Your task to perform on an android device: toggle show notifications on the lock screen Image 0: 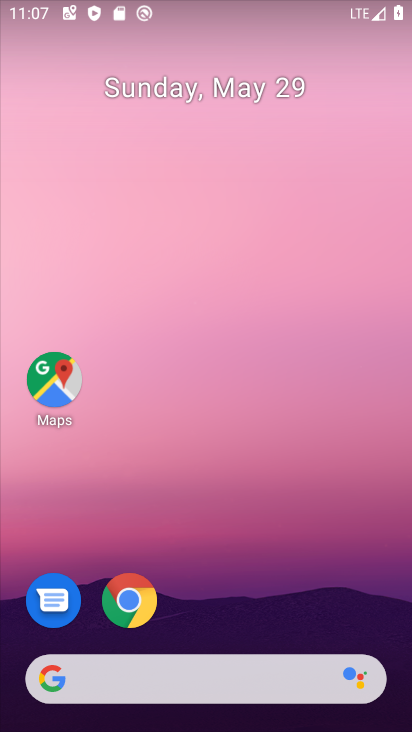
Step 0: drag from (390, 701) to (371, 301)
Your task to perform on an android device: toggle show notifications on the lock screen Image 1: 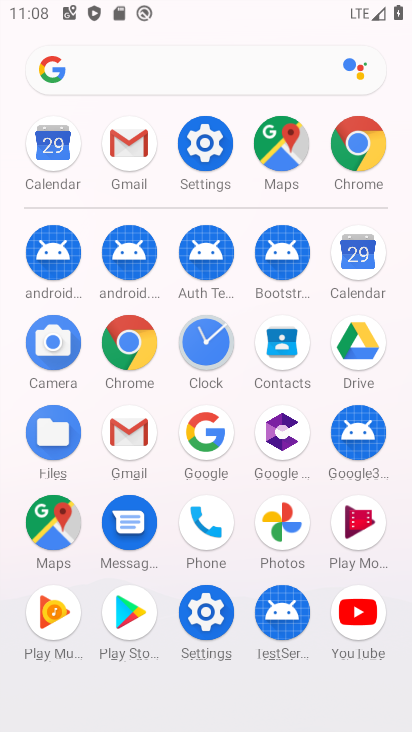
Step 1: click (210, 621)
Your task to perform on an android device: toggle show notifications on the lock screen Image 2: 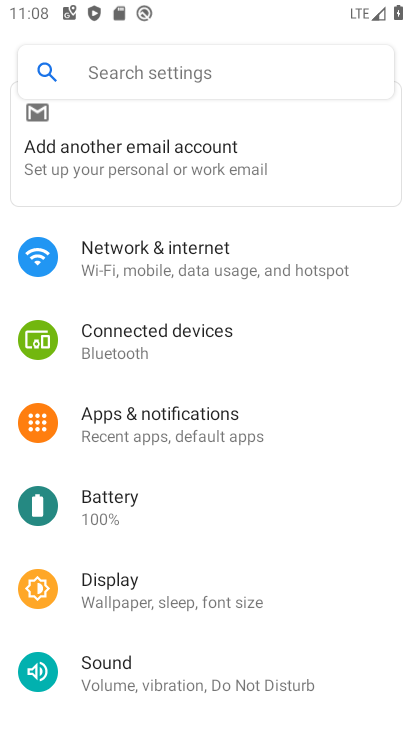
Step 2: click (165, 425)
Your task to perform on an android device: toggle show notifications on the lock screen Image 3: 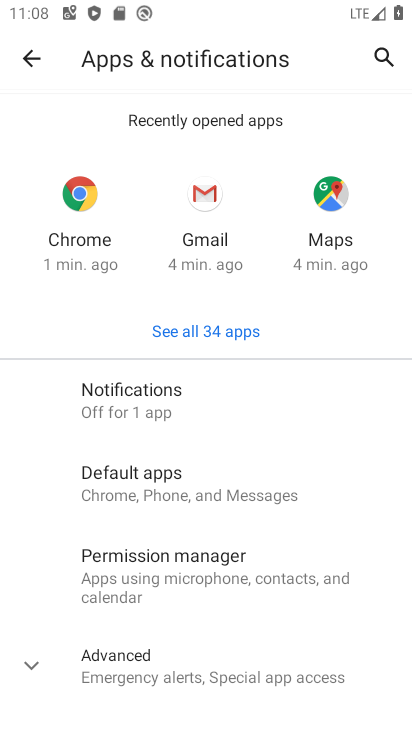
Step 3: click (122, 416)
Your task to perform on an android device: toggle show notifications on the lock screen Image 4: 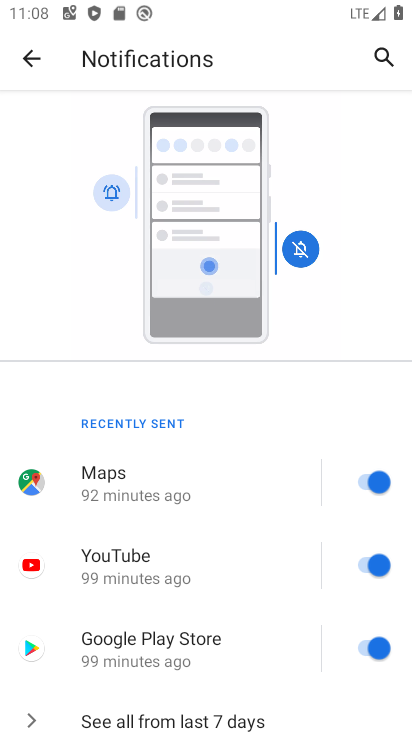
Step 4: drag from (200, 678) to (206, 117)
Your task to perform on an android device: toggle show notifications on the lock screen Image 5: 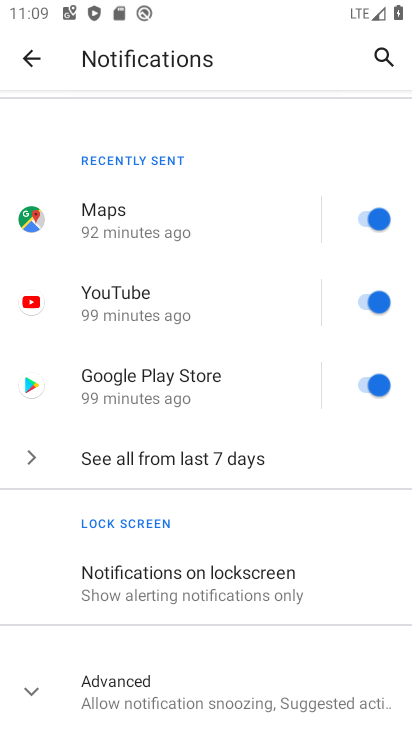
Step 5: click (112, 600)
Your task to perform on an android device: toggle show notifications on the lock screen Image 6: 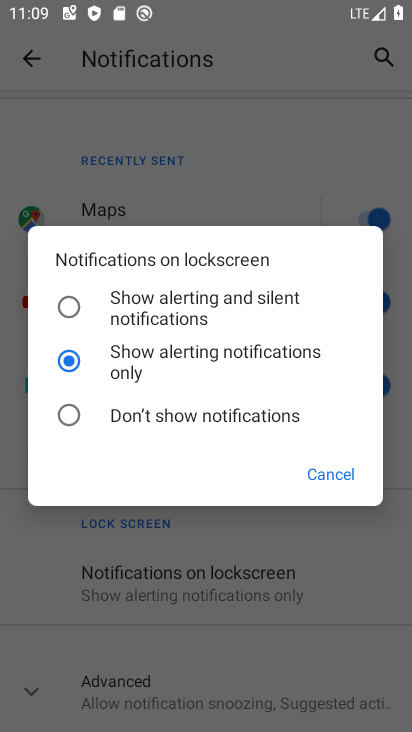
Step 6: click (144, 412)
Your task to perform on an android device: toggle show notifications on the lock screen Image 7: 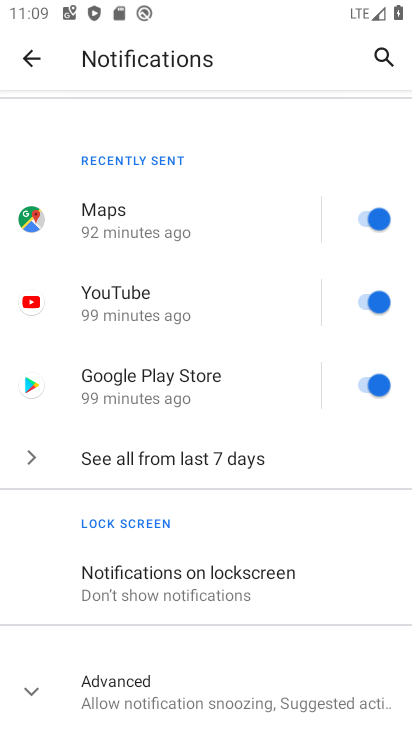
Step 7: task complete